Your task to perform on an android device: remove spam from my inbox in the gmail app Image 0: 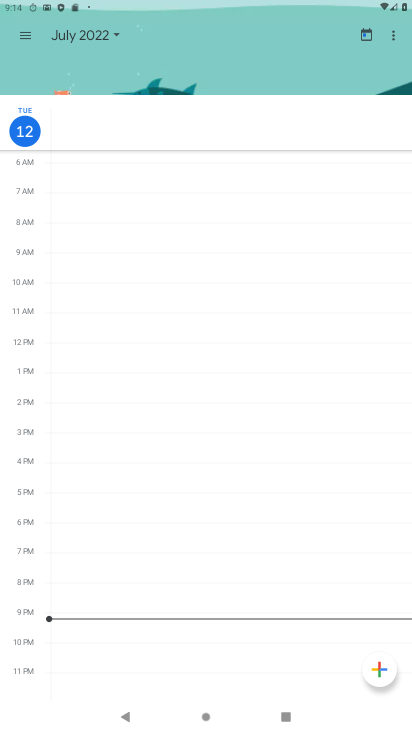
Step 0: press back button
Your task to perform on an android device: remove spam from my inbox in the gmail app Image 1: 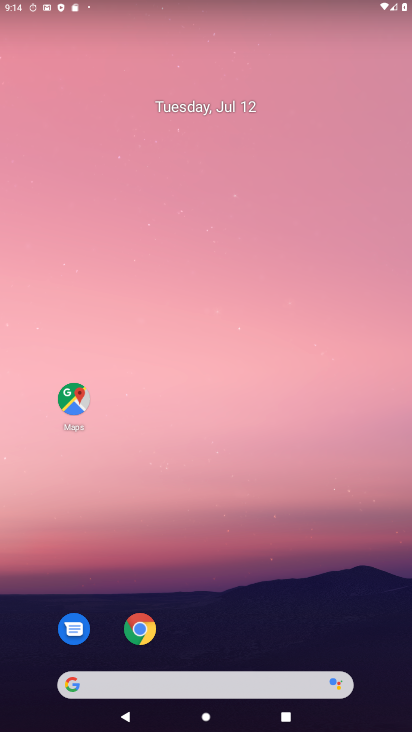
Step 1: drag from (246, 713) to (277, 202)
Your task to perform on an android device: remove spam from my inbox in the gmail app Image 2: 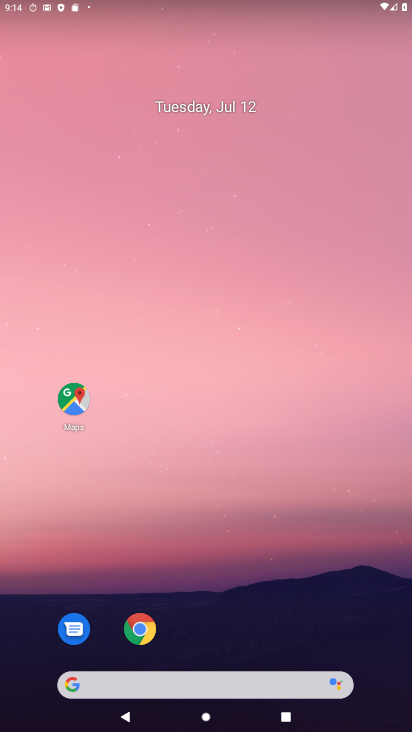
Step 2: drag from (335, 503) to (335, 230)
Your task to perform on an android device: remove spam from my inbox in the gmail app Image 3: 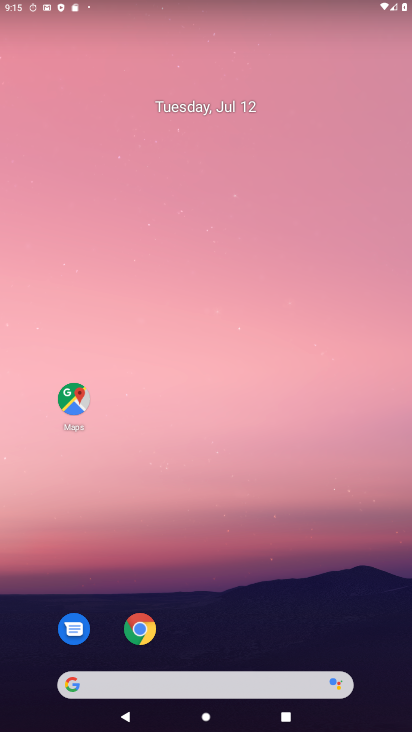
Step 3: click (244, 198)
Your task to perform on an android device: remove spam from my inbox in the gmail app Image 4: 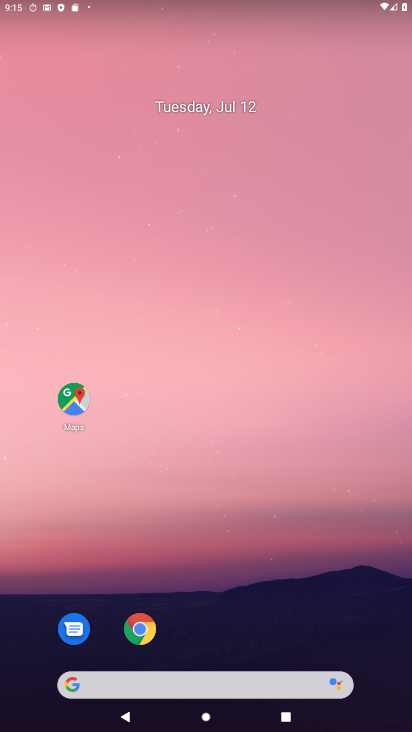
Step 4: drag from (312, 632) to (275, 66)
Your task to perform on an android device: remove spam from my inbox in the gmail app Image 5: 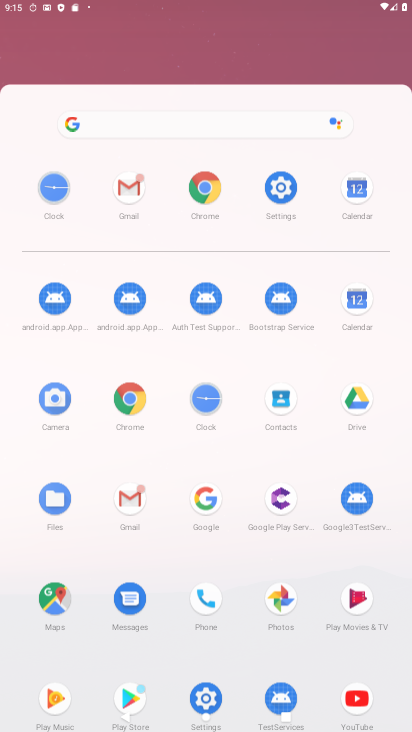
Step 5: drag from (197, 588) to (164, 146)
Your task to perform on an android device: remove spam from my inbox in the gmail app Image 6: 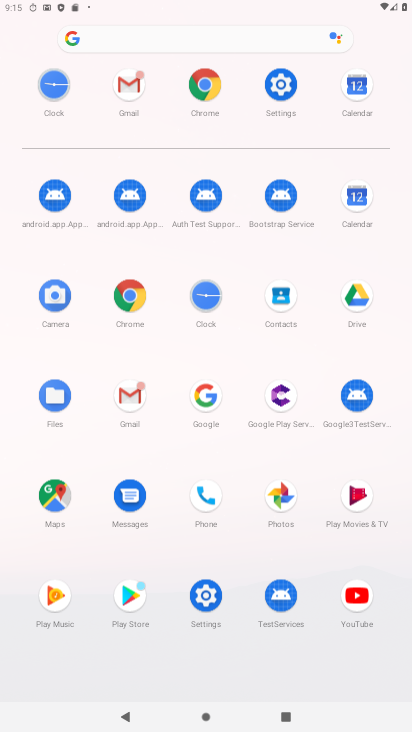
Step 6: drag from (221, 659) to (214, 121)
Your task to perform on an android device: remove spam from my inbox in the gmail app Image 7: 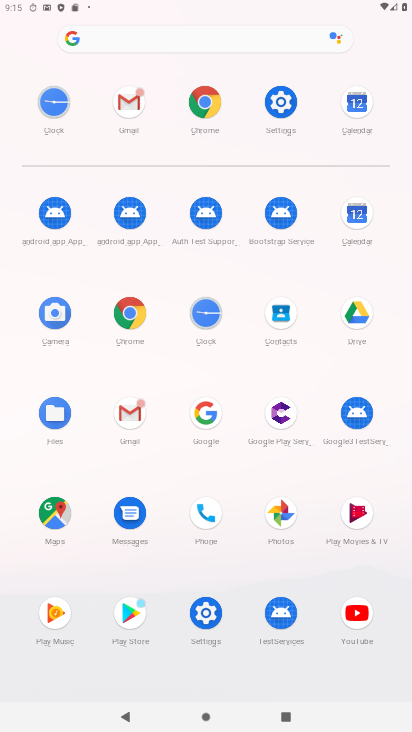
Step 7: click (135, 412)
Your task to perform on an android device: remove spam from my inbox in the gmail app Image 8: 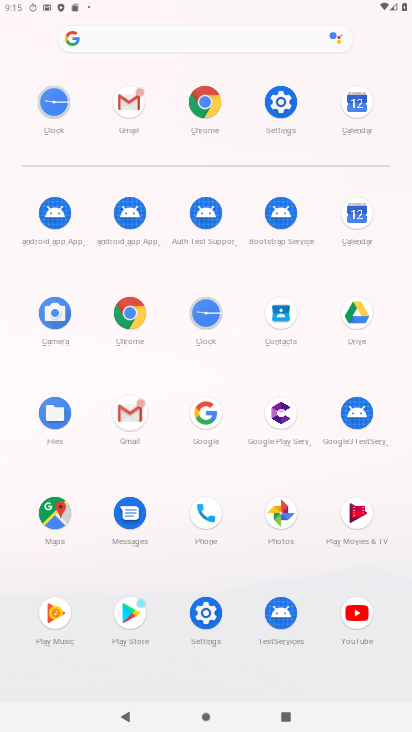
Step 8: click (137, 412)
Your task to perform on an android device: remove spam from my inbox in the gmail app Image 9: 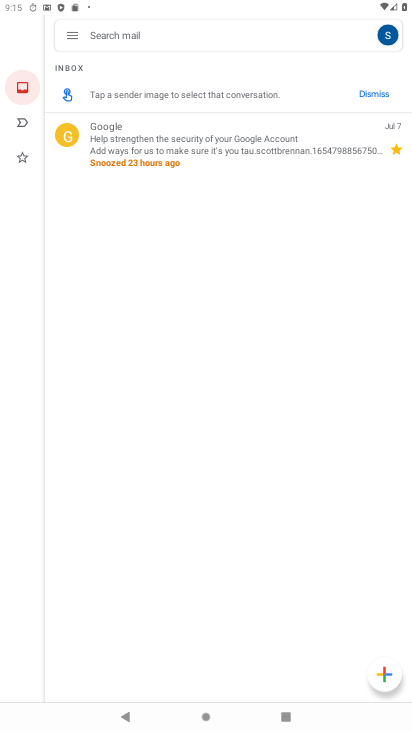
Step 9: click (72, 34)
Your task to perform on an android device: remove spam from my inbox in the gmail app Image 10: 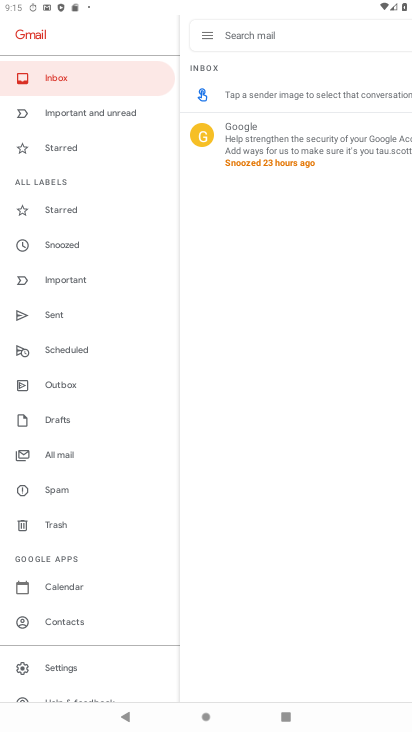
Step 10: click (66, 486)
Your task to perform on an android device: remove spam from my inbox in the gmail app Image 11: 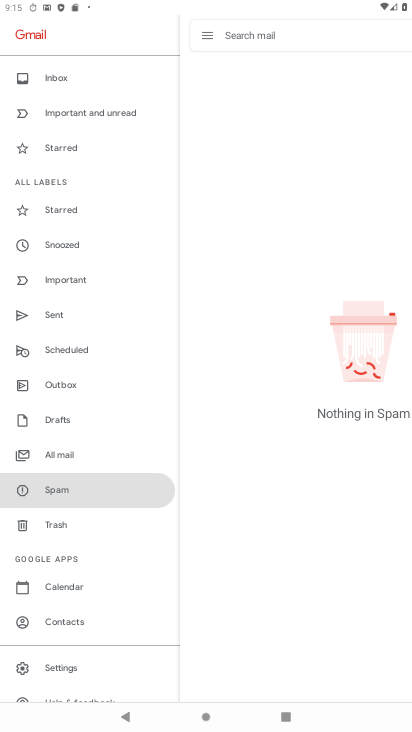
Step 11: task complete